Your task to perform on an android device: turn off sleep mode Image 0: 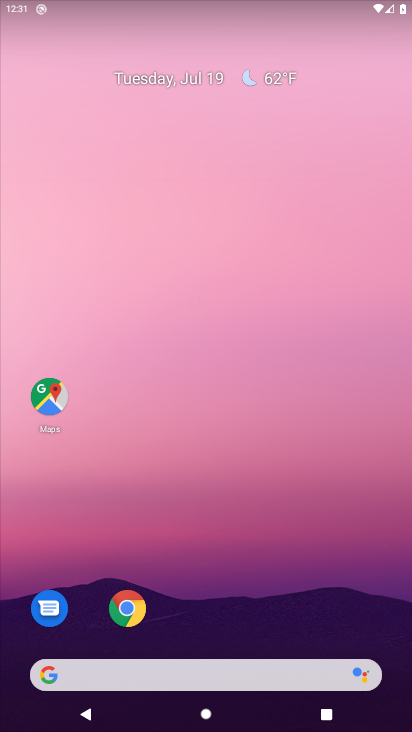
Step 0: press home button
Your task to perform on an android device: turn off sleep mode Image 1: 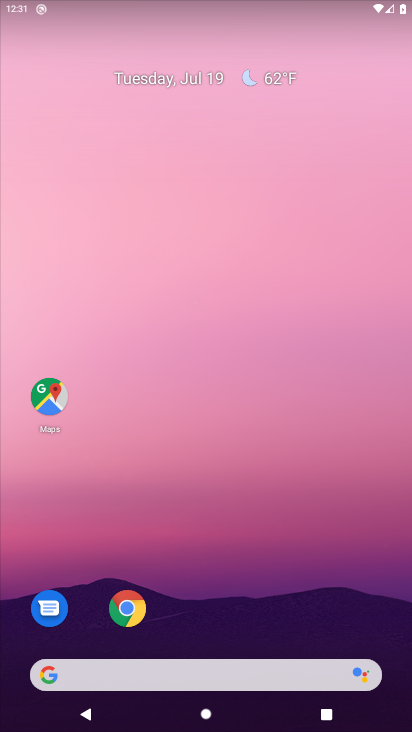
Step 1: drag from (222, 637) to (194, 22)
Your task to perform on an android device: turn off sleep mode Image 2: 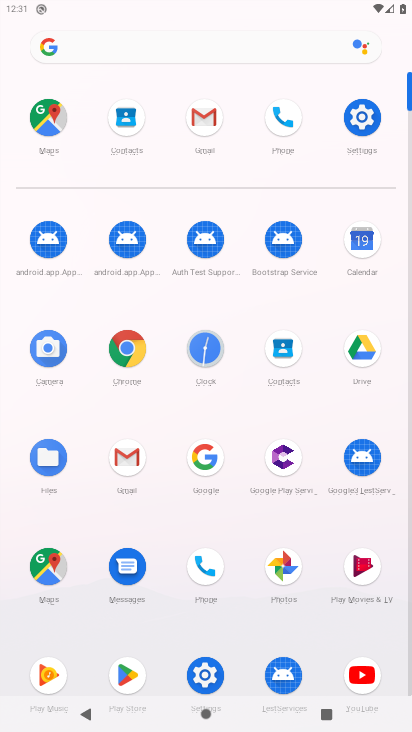
Step 2: click (359, 114)
Your task to perform on an android device: turn off sleep mode Image 3: 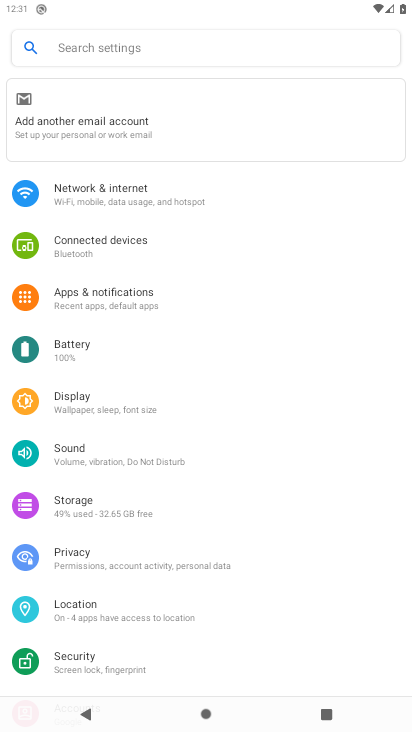
Step 3: click (100, 395)
Your task to perform on an android device: turn off sleep mode Image 4: 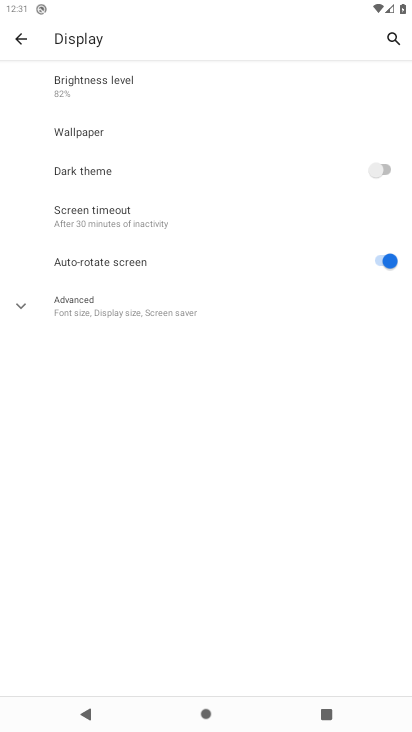
Step 4: click (17, 302)
Your task to perform on an android device: turn off sleep mode Image 5: 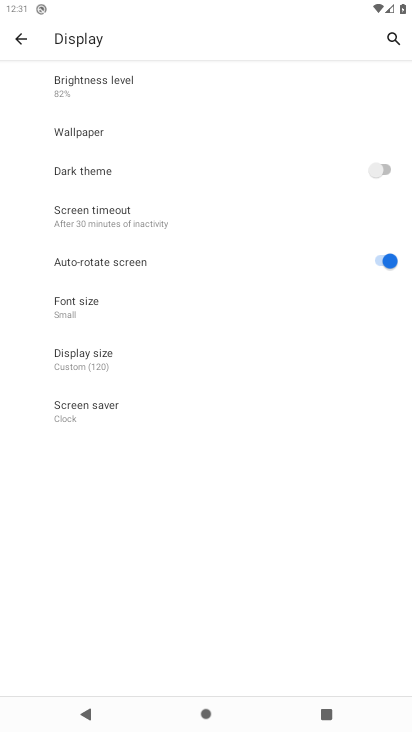
Step 5: task complete